Your task to perform on an android device: open app "Microsoft Excel" (install if not already installed), go to login, and select forgot password Image 0: 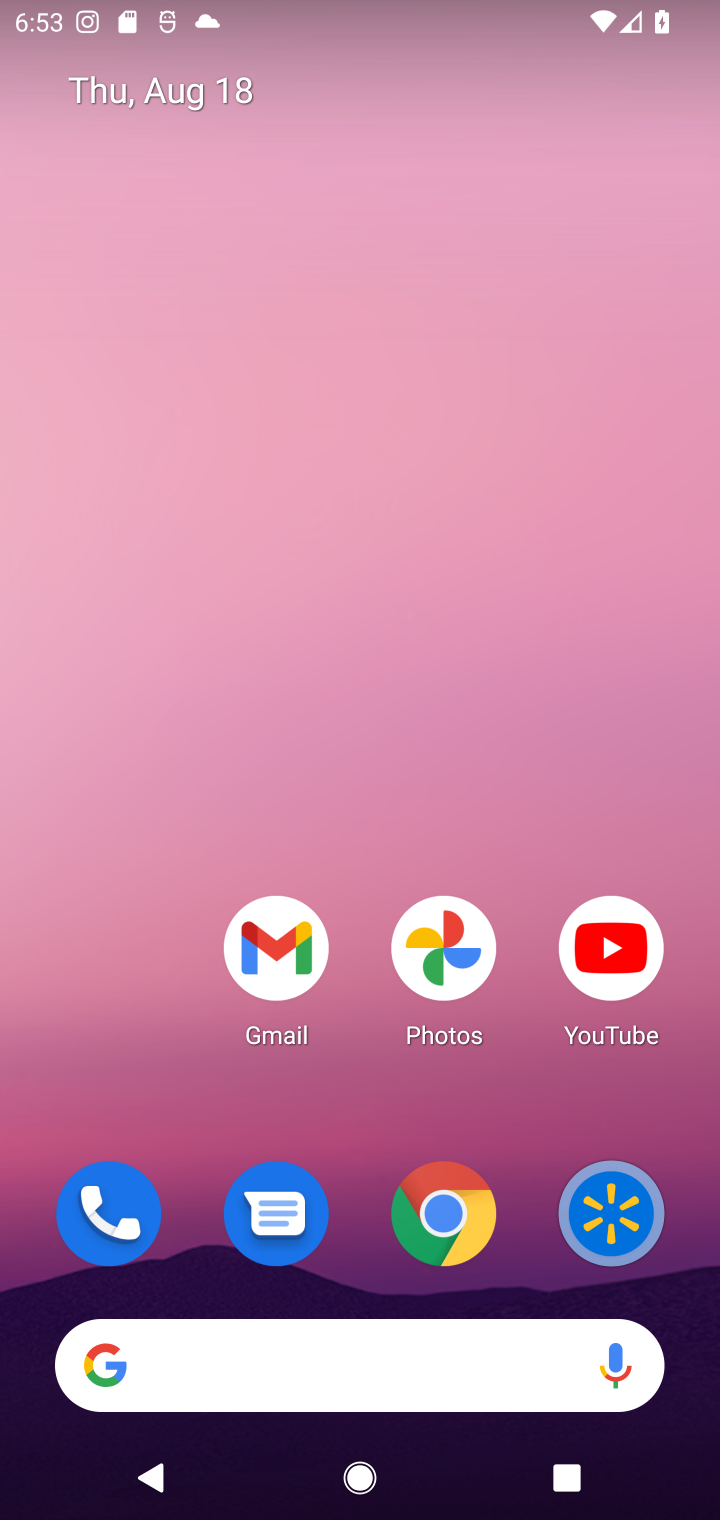
Step 0: drag from (357, 888) to (359, 31)
Your task to perform on an android device: open app "Microsoft Excel" (install if not already installed), go to login, and select forgot password Image 1: 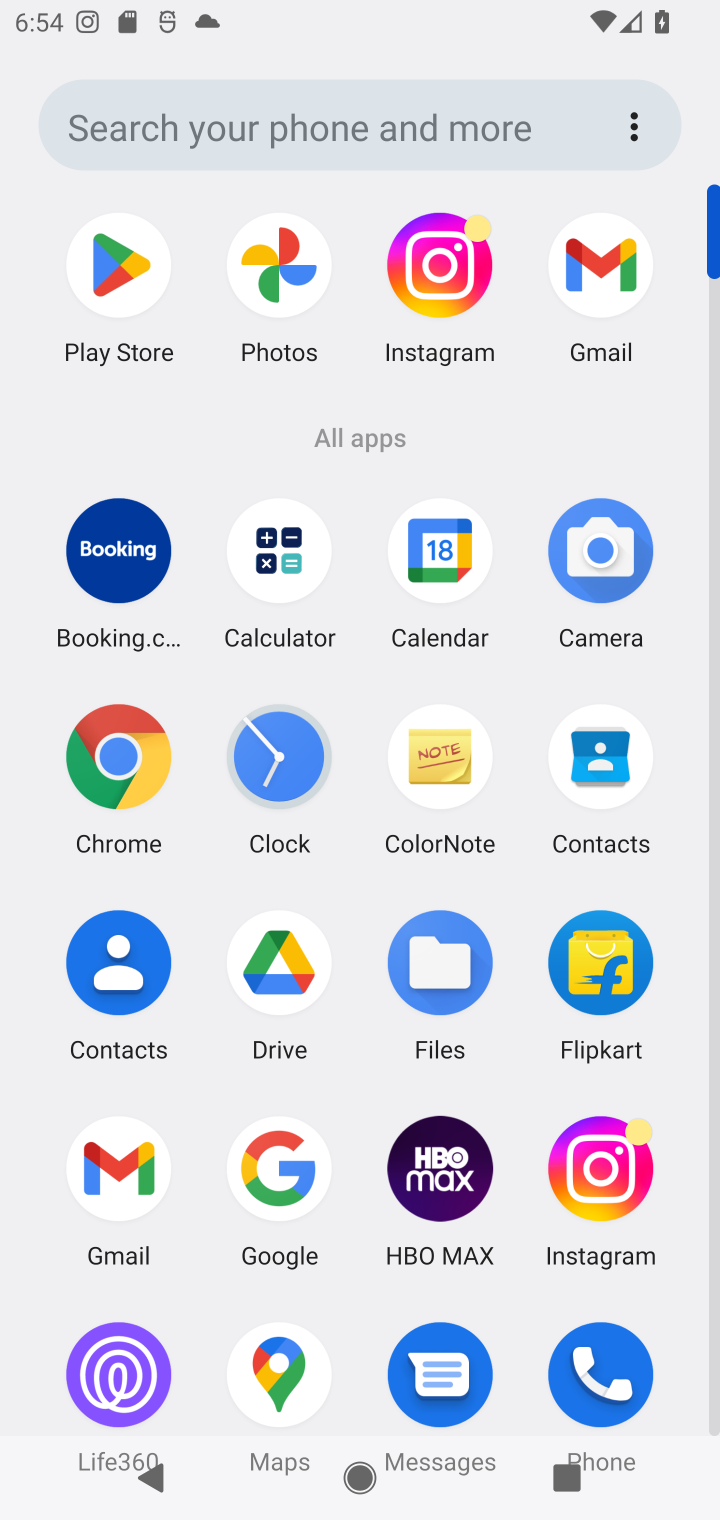
Step 1: click (108, 263)
Your task to perform on an android device: open app "Microsoft Excel" (install if not already installed), go to login, and select forgot password Image 2: 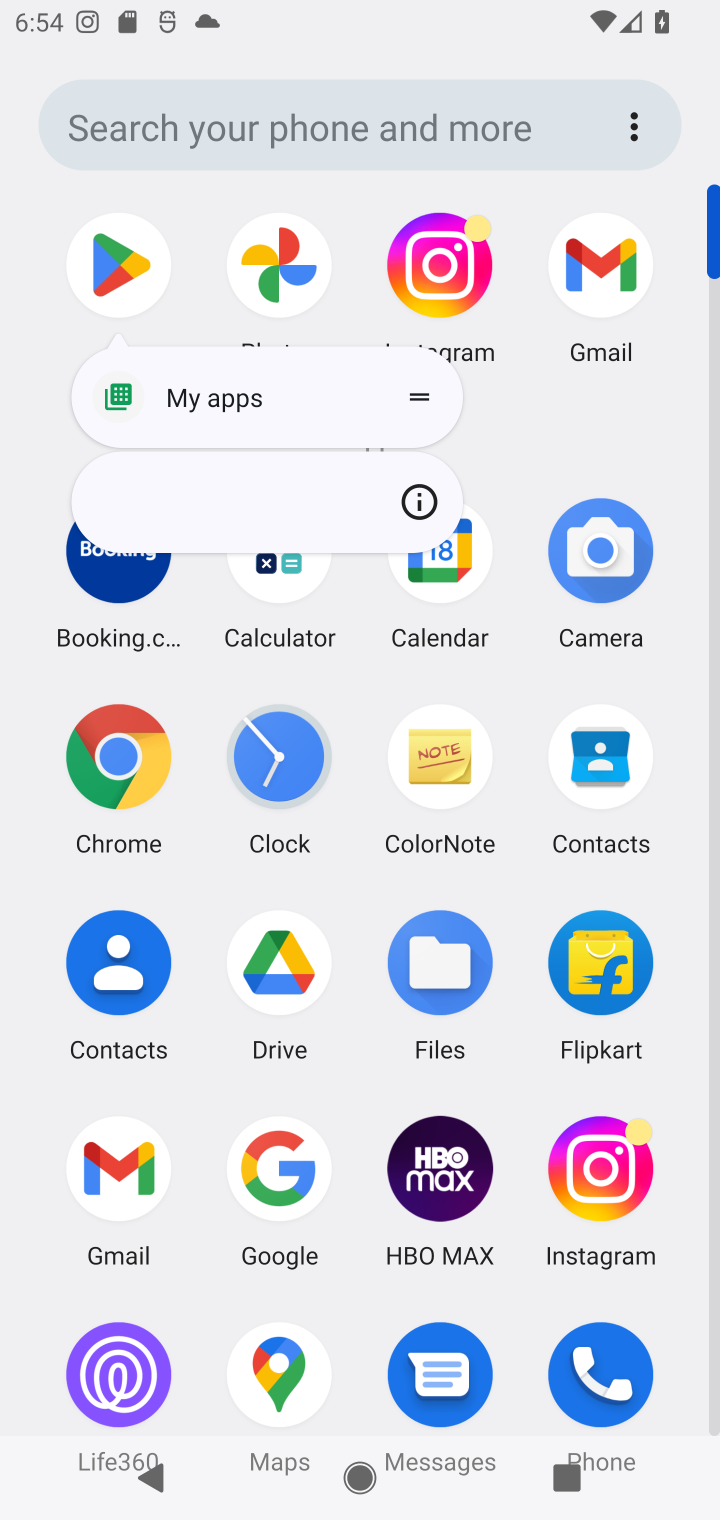
Step 2: click (115, 271)
Your task to perform on an android device: open app "Microsoft Excel" (install if not already installed), go to login, and select forgot password Image 3: 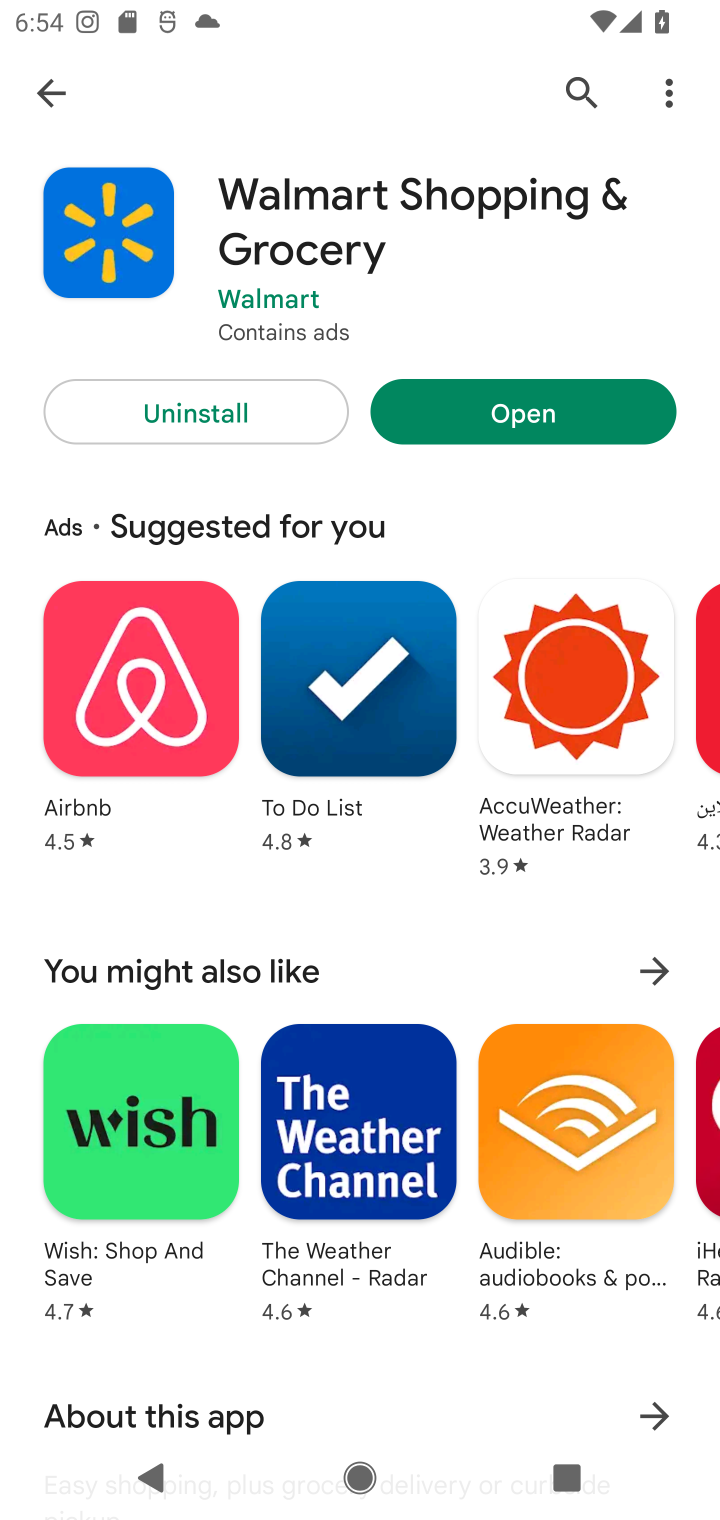
Step 3: click (559, 99)
Your task to perform on an android device: open app "Microsoft Excel" (install if not already installed), go to login, and select forgot password Image 4: 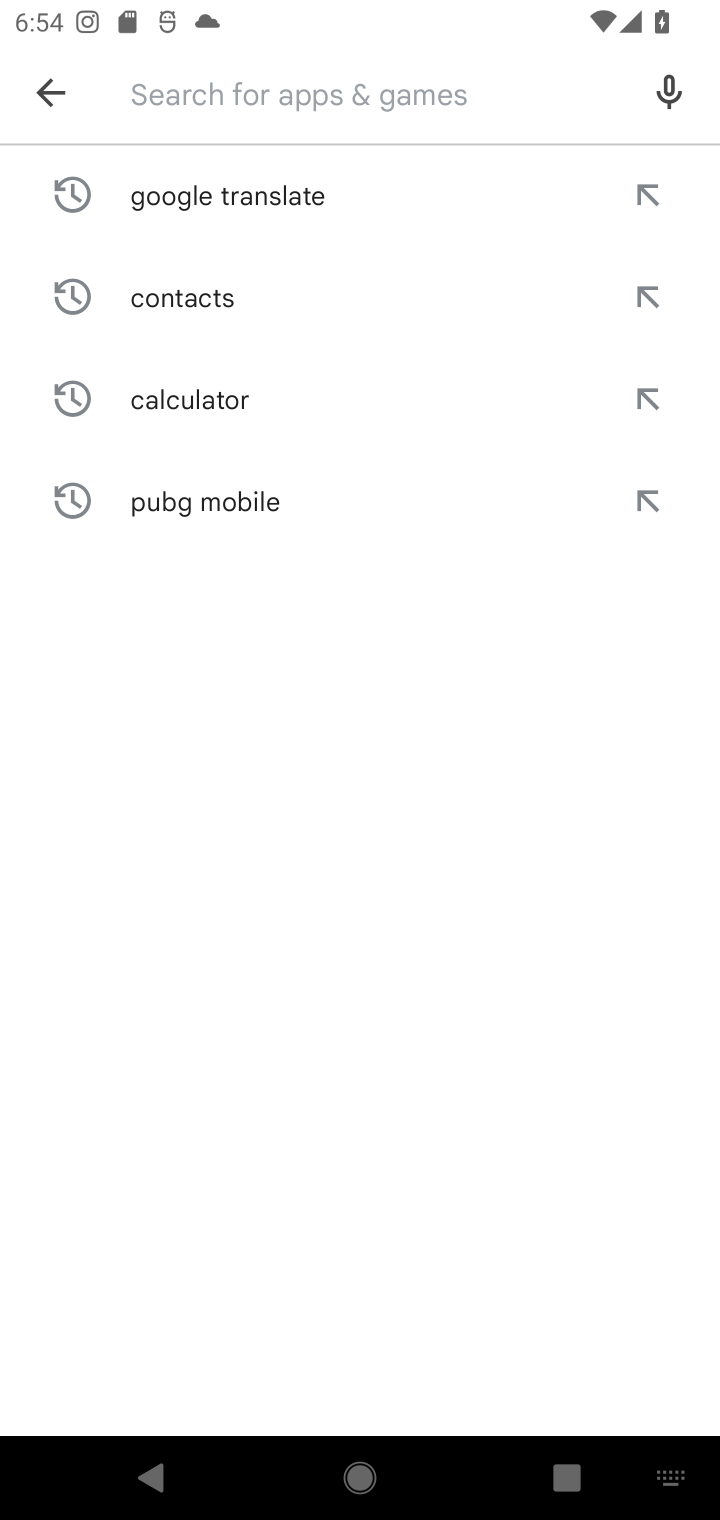
Step 4: type "Microsoft Excel"
Your task to perform on an android device: open app "Microsoft Excel" (install if not already installed), go to login, and select forgot password Image 5: 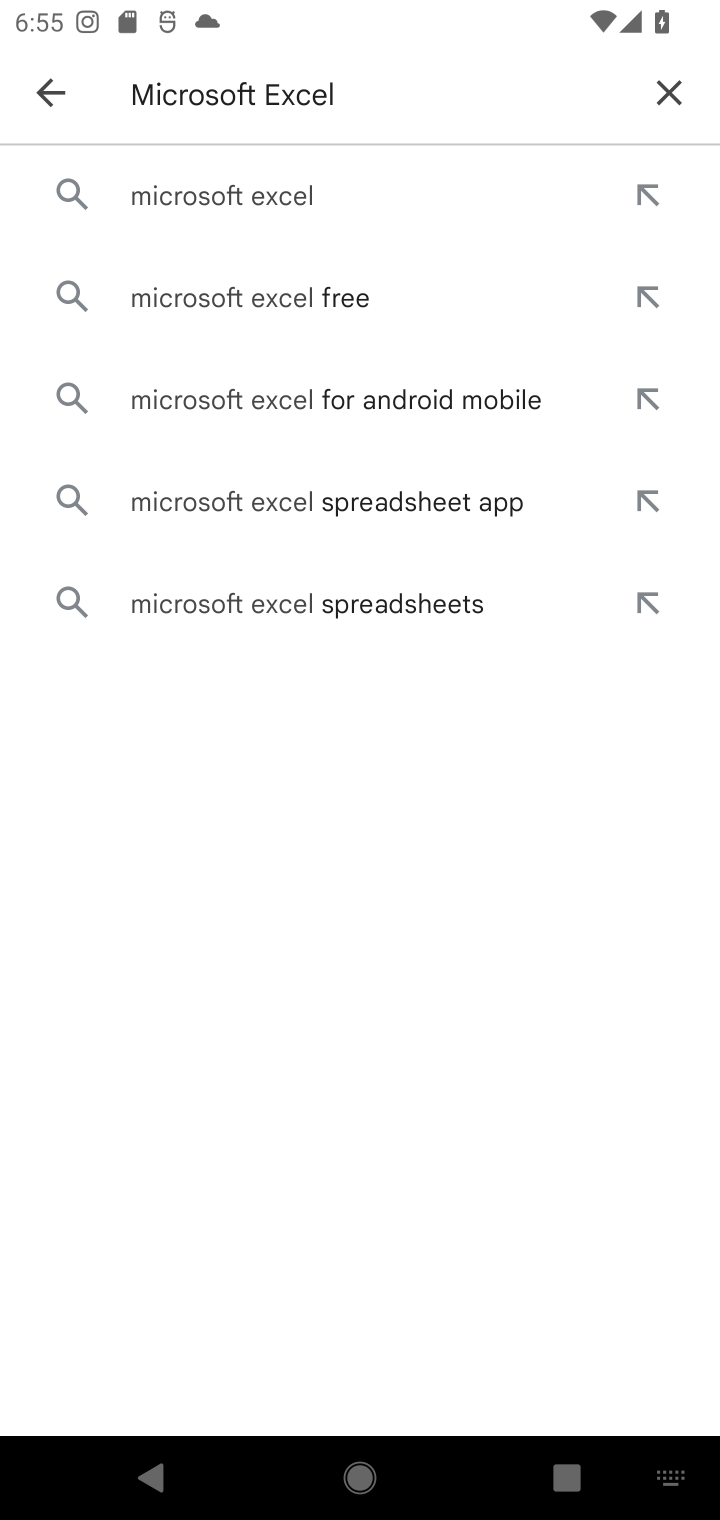
Step 5: click (299, 188)
Your task to perform on an android device: open app "Microsoft Excel" (install if not already installed), go to login, and select forgot password Image 6: 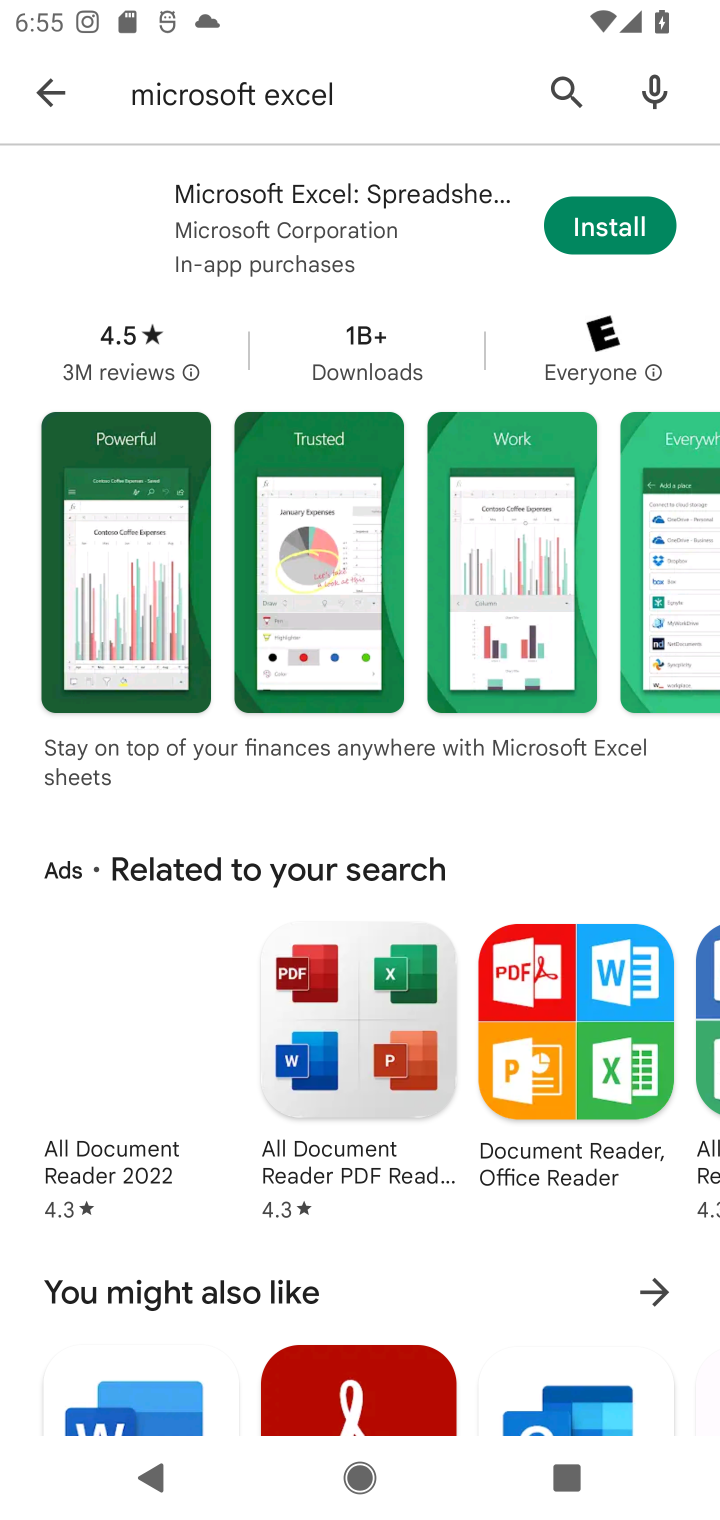
Step 6: click (635, 214)
Your task to perform on an android device: open app "Microsoft Excel" (install if not already installed), go to login, and select forgot password Image 7: 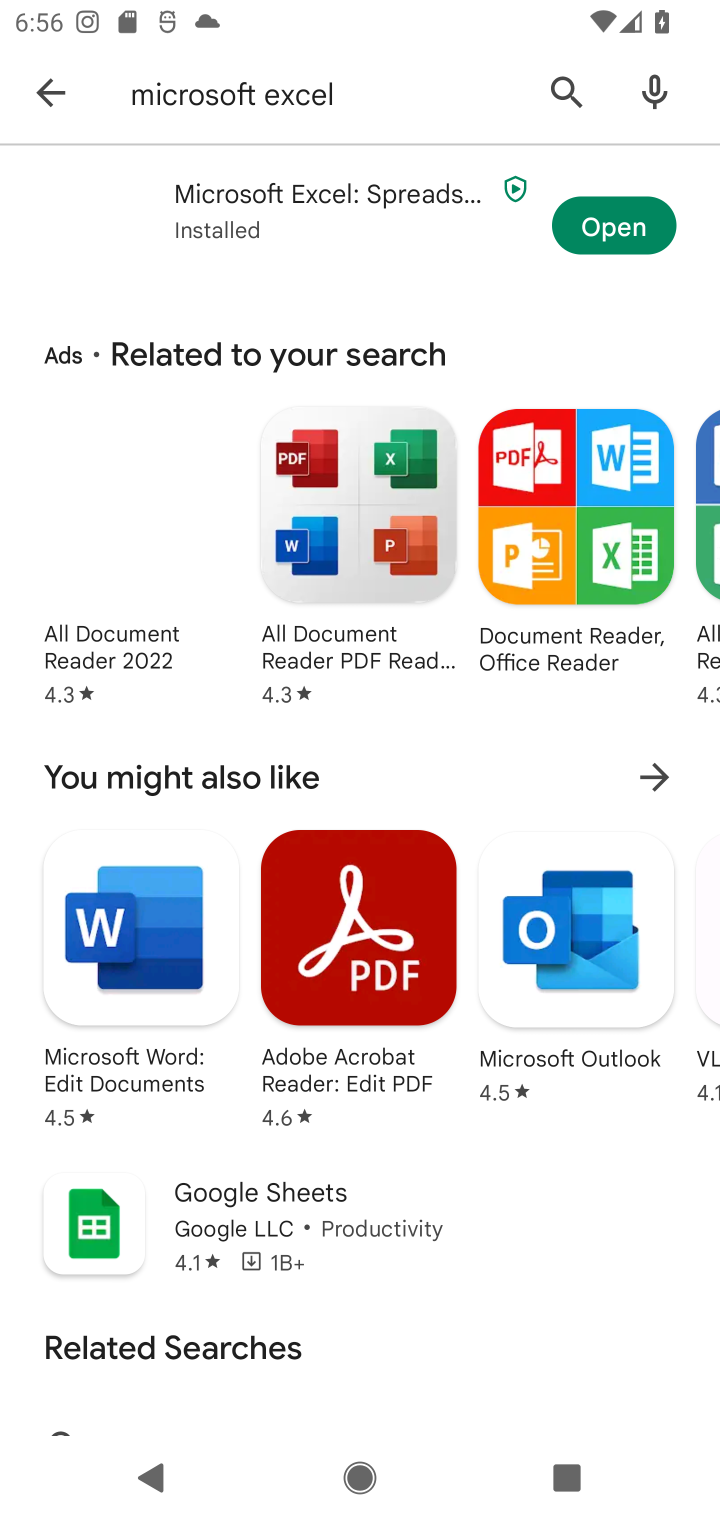
Step 7: click (606, 220)
Your task to perform on an android device: open app "Microsoft Excel" (install if not already installed), go to login, and select forgot password Image 8: 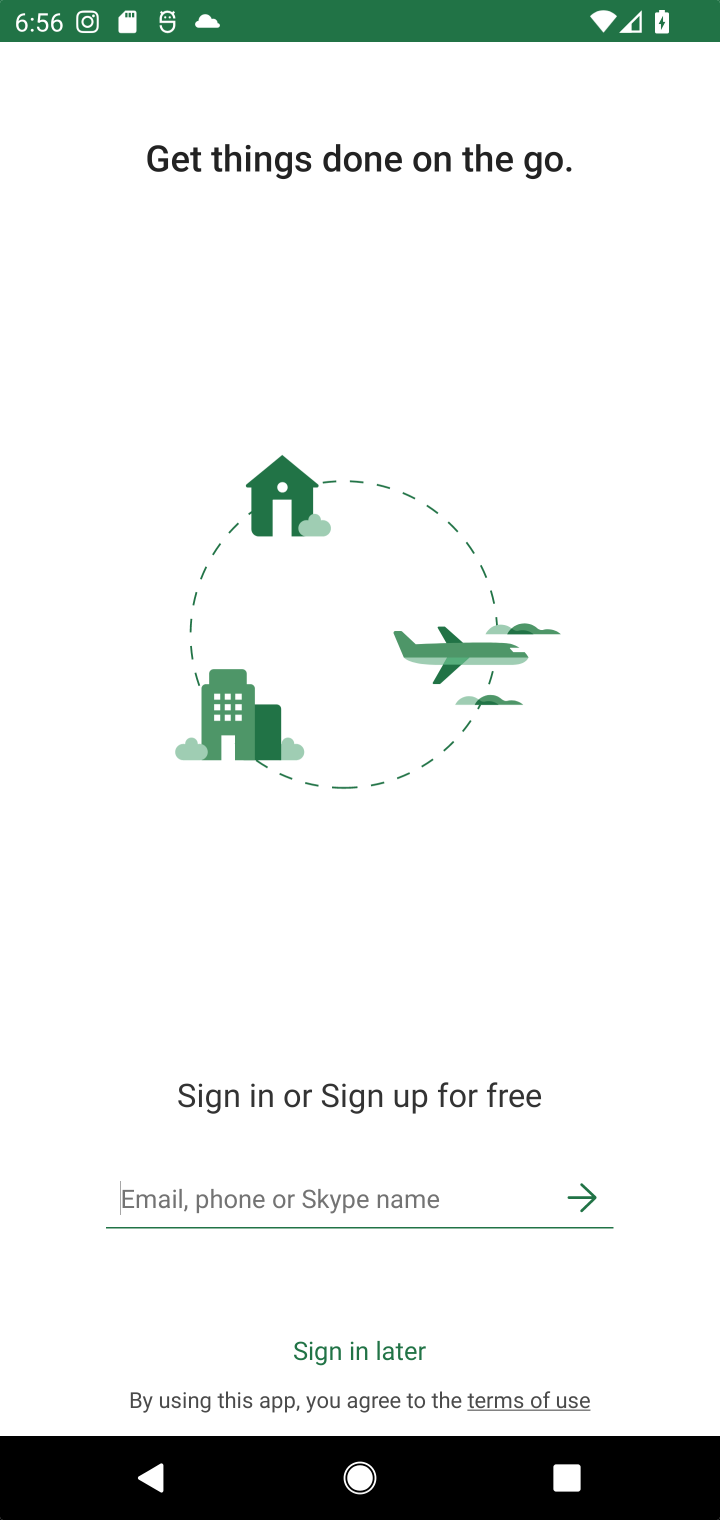
Step 8: task complete